Your task to perform on an android device: turn off wifi Image 0: 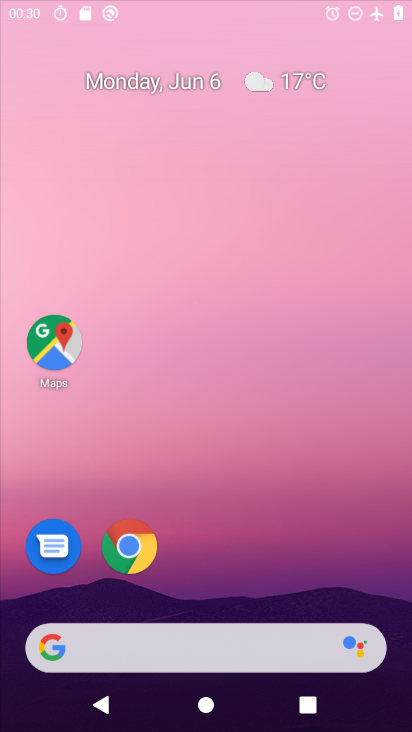
Step 0: drag from (232, 427) to (287, 6)
Your task to perform on an android device: turn off wifi Image 1: 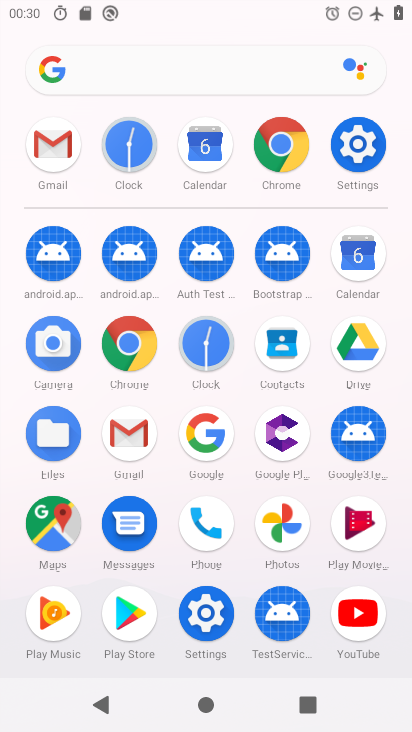
Step 1: click (365, 141)
Your task to perform on an android device: turn off wifi Image 2: 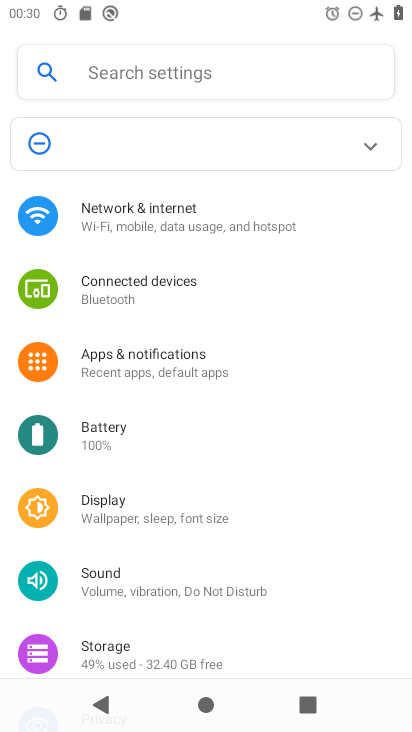
Step 2: click (196, 213)
Your task to perform on an android device: turn off wifi Image 3: 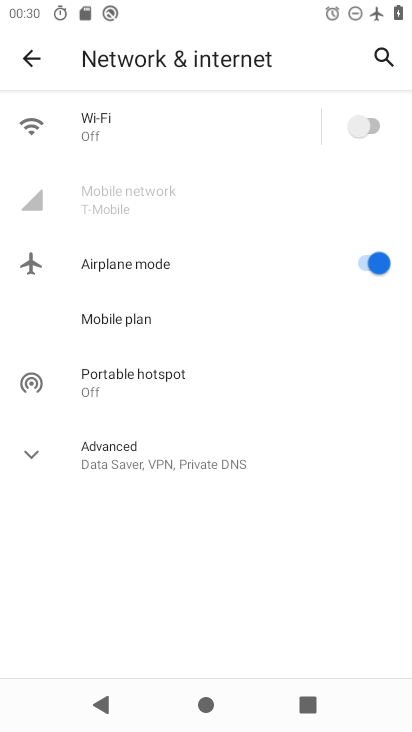
Step 3: click (204, 122)
Your task to perform on an android device: turn off wifi Image 4: 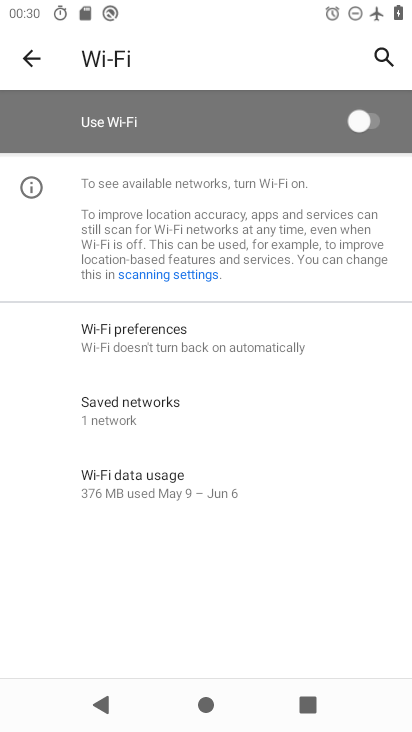
Step 4: task complete